Your task to perform on an android device: Search for a 1/4" hex shank drill bit on Lowe's. Image 0: 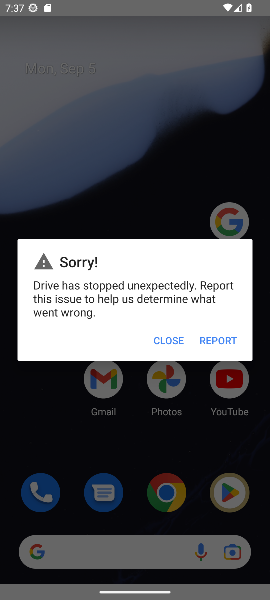
Step 0: click (159, 341)
Your task to perform on an android device: Search for a 1/4" hex shank drill bit on Lowe's. Image 1: 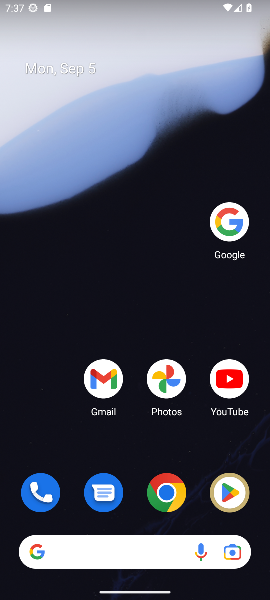
Step 1: click (228, 210)
Your task to perform on an android device: Search for a 1/4" hex shank drill bit on Lowe's. Image 2: 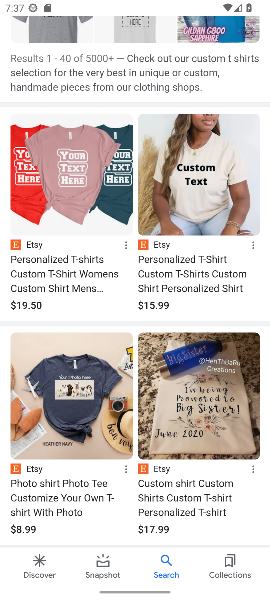
Step 2: drag from (150, 131) to (141, 500)
Your task to perform on an android device: Search for a 1/4" hex shank drill bit on Lowe's. Image 3: 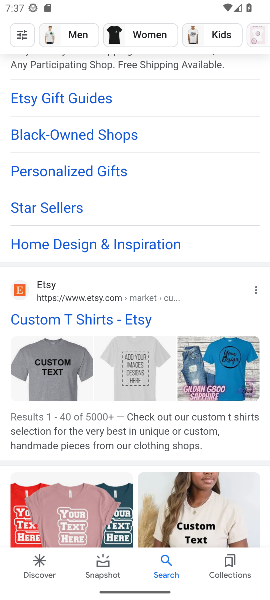
Step 3: drag from (152, 71) to (146, 504)
Your task to perform on an android device: Search for a 1/4" hex shank drill bit on Lowe's. Image 4: 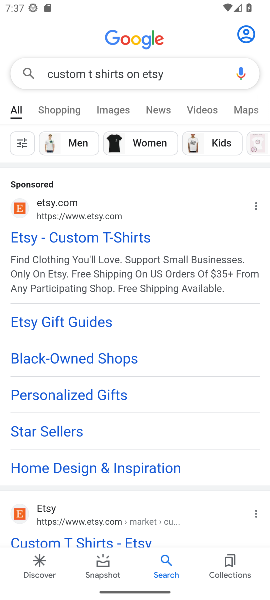
Step 4: click (177, 71)
Your task to perform on an android device: Search for a 1/4" hex shank drill bit on Lowe's. Image 5: 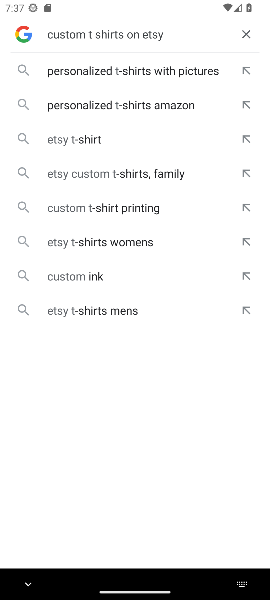
Step 5: click (246, 31)
Your task to perform on an android device: Search for a 1/4" hex shank drill bit on Lowe's. Image 6: 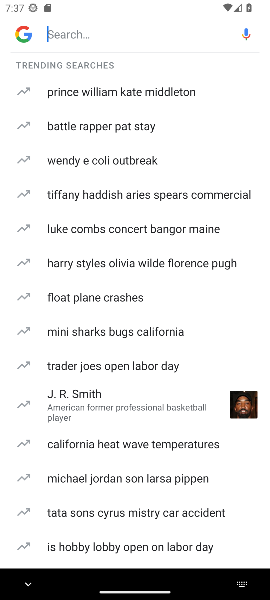
Step 6: click (124, 26)
Your task to perform on an android device: Search for a 1/4" hex shank drill bit on Lowe's. Image 7: 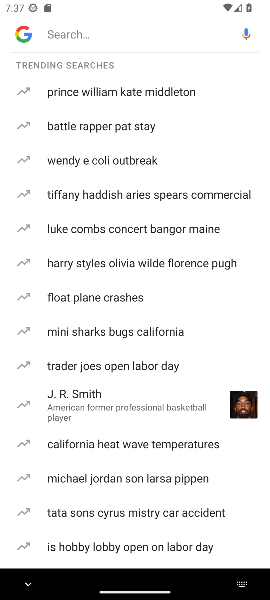
Step 7: type " 1/4" hex shank drill bit on Lowe's "
Your task to perform on an android device: Search for a 1/4" hex shank drill bit on Lowe's. Image 8: 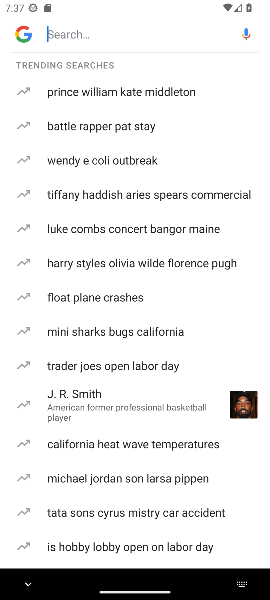
Step 8: click (97, 22)
Your task to perform on an android device: Search for a 1/4" hex shank drill bit on Lowe's. Image 9: 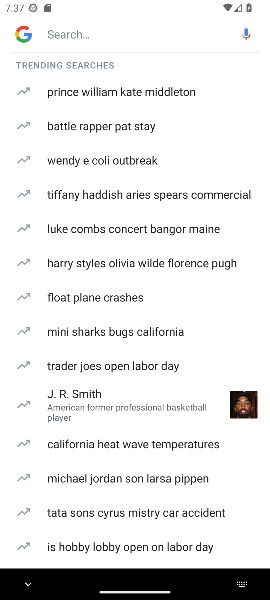
Step 9: type " 1/4" hex shank drill bit on Lowe's "
Your task to perform on an android device: Search for a 1/4" hex shank drill bit on Lowe's. Image 10: 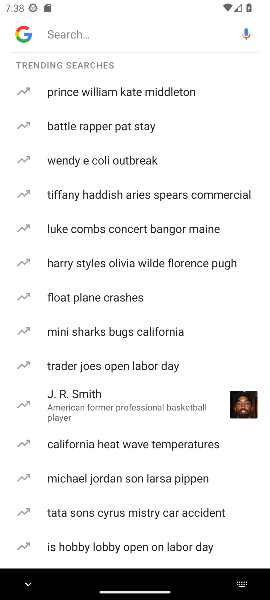
Step 10: click (112, 31)
Your task to perform on an android device: Search for a 1/4" hex shank drill bit on Lowe's. Image 11: 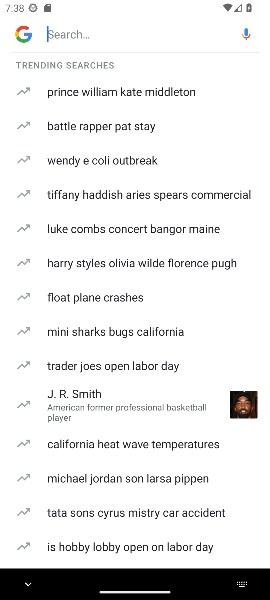
Step 11: type "hex shank drill bit on Lowe's "
Your task to perform on an android device: Search for a 1/4" hex shank drill bit on Lowe's. Image 12: 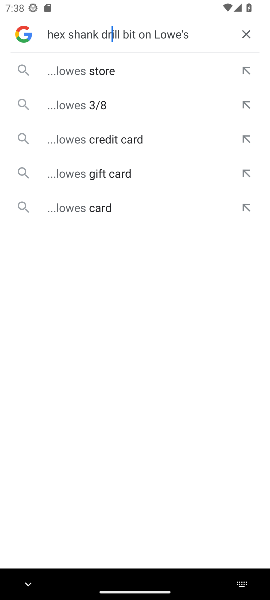
Step 12: click (78, 68)
Your task to perform on an android device: Search for a 1/4" hex shank drill bit on Lowe's. Image 13: 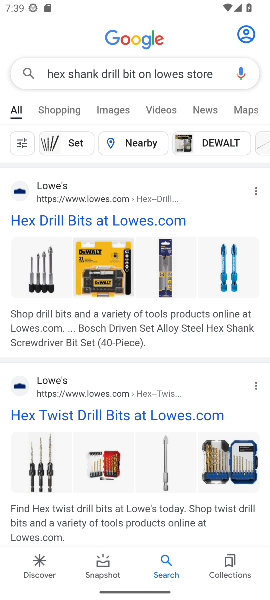
Step 13: click (124, 220)
Your task to perform on an android device: Search for a 1/4" hex shank drill bit on Lowe's. Image 14: 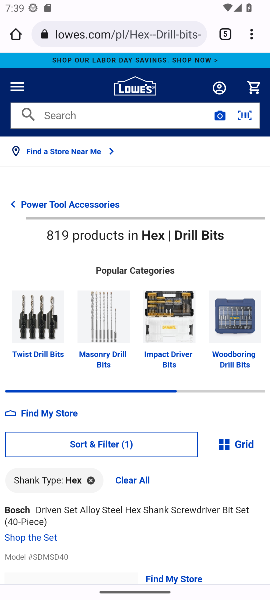
Step 14: task complete